Your task to perform on an android device: check android version Image 0: 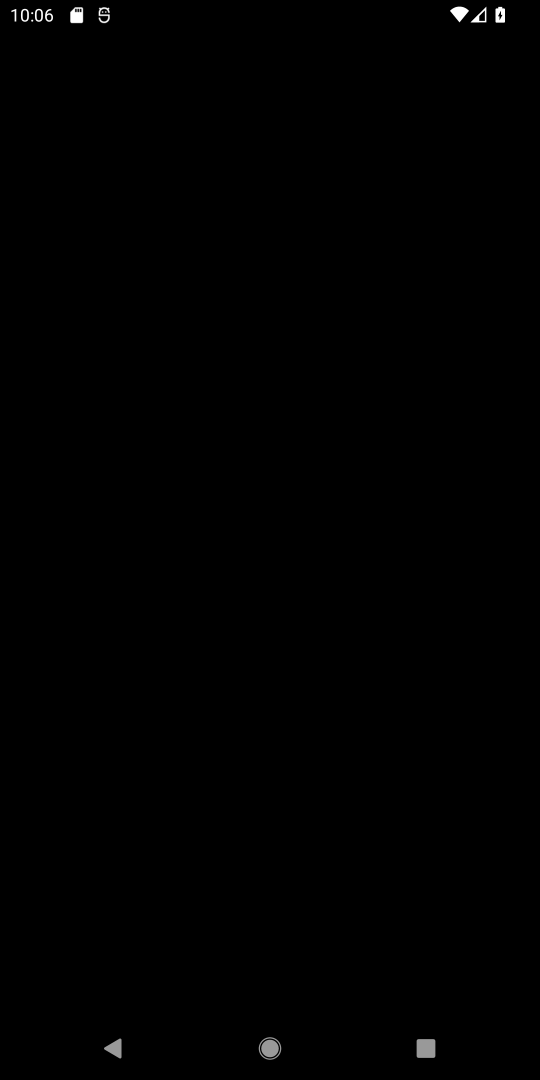
Step 0: press home button
Your task to perform on an android device: check android version Image 1: 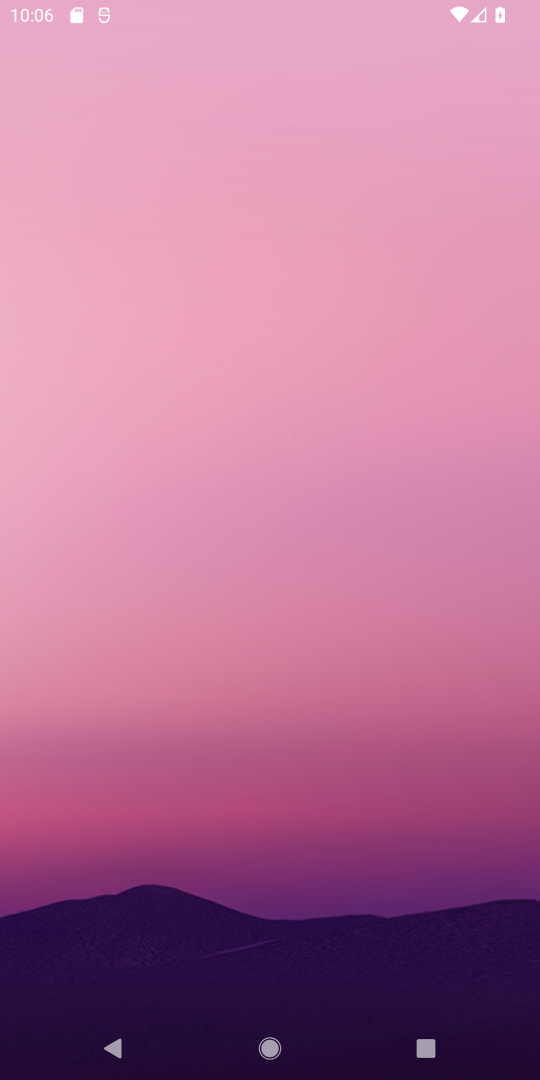
Step 1: press home button
Your task to perform on an android device: check android version Image 2: 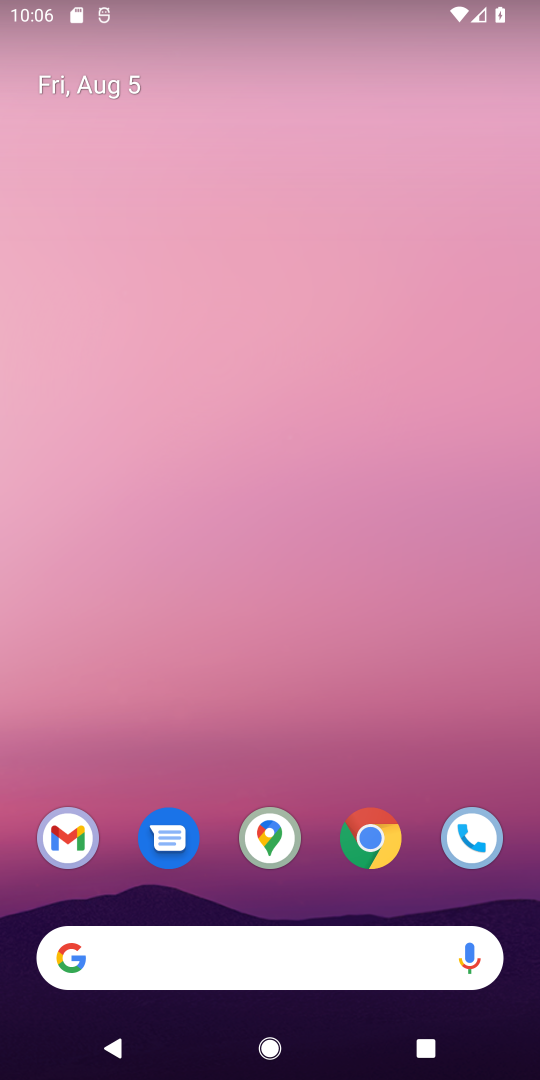
Step 2: press home button
Your task to perform on an android device: check android version Image 3: 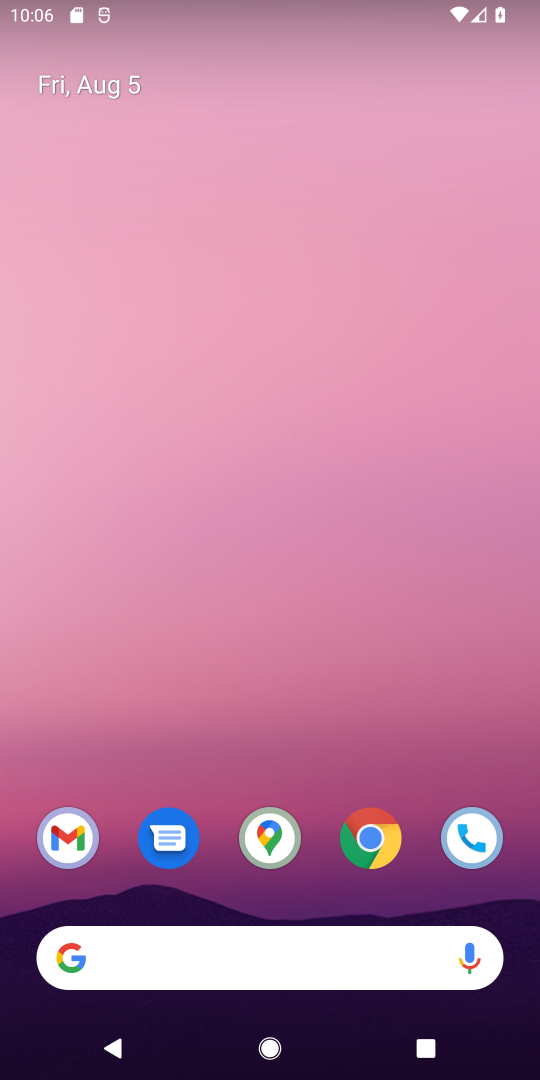
Step 3: drag from (97, 753) to (110, 232)
Your task to perform on an android device: check android version Image 4: 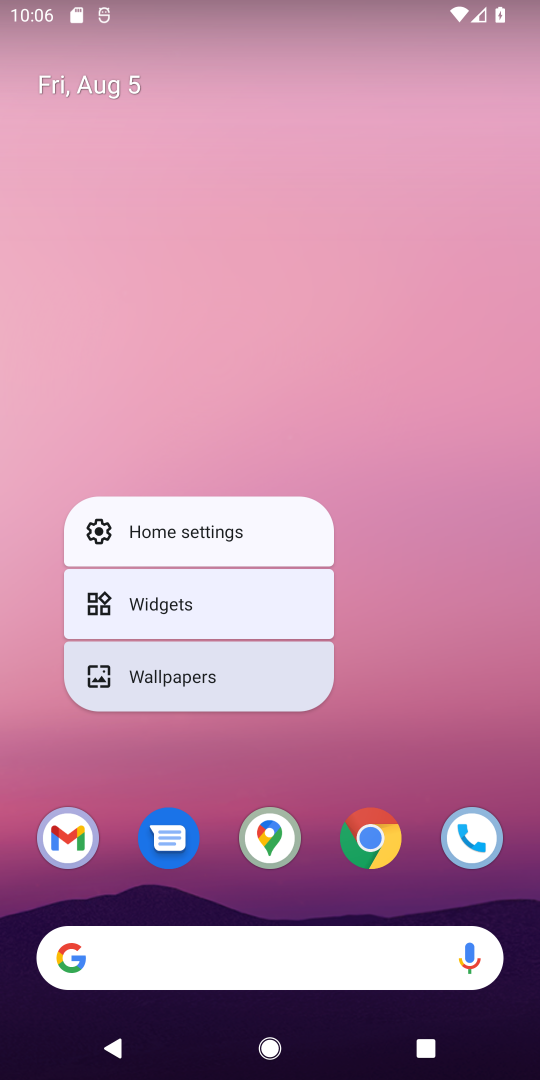
Step 4: click (462, 693)
Your task to perform on an android device: check android version Image 5: 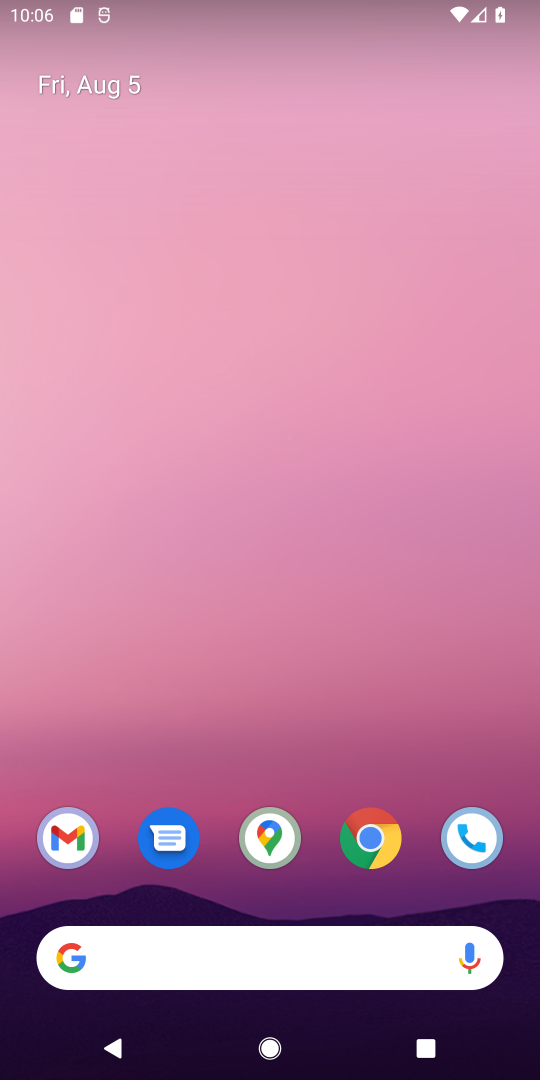
Step 5: drag from (462, 693) to (377, 78)
Your task to perform on an android device: check android version Image 6: 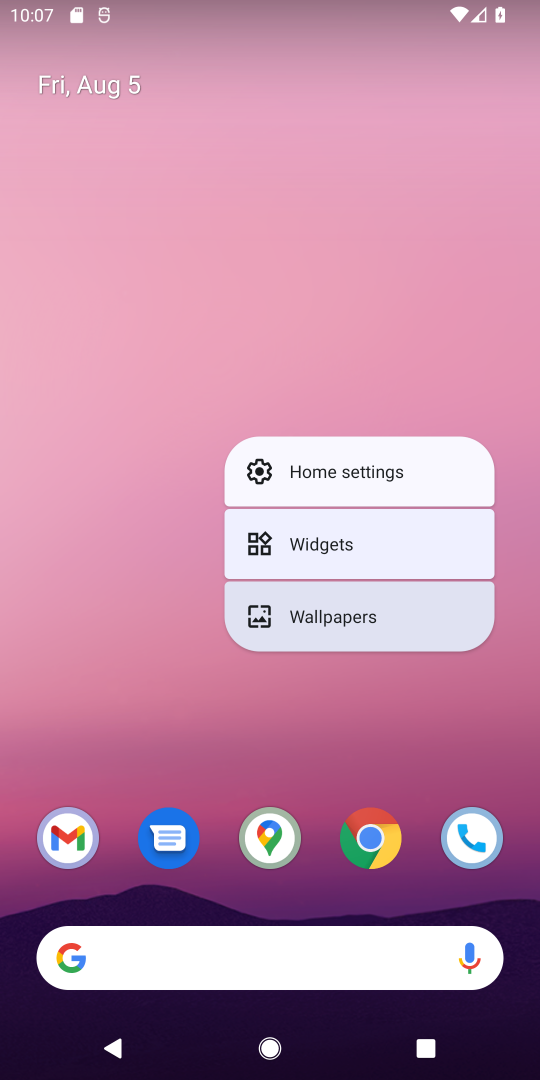
Step 6: click (70, 704)
Your task to perform on an android device: check android version Image 7: 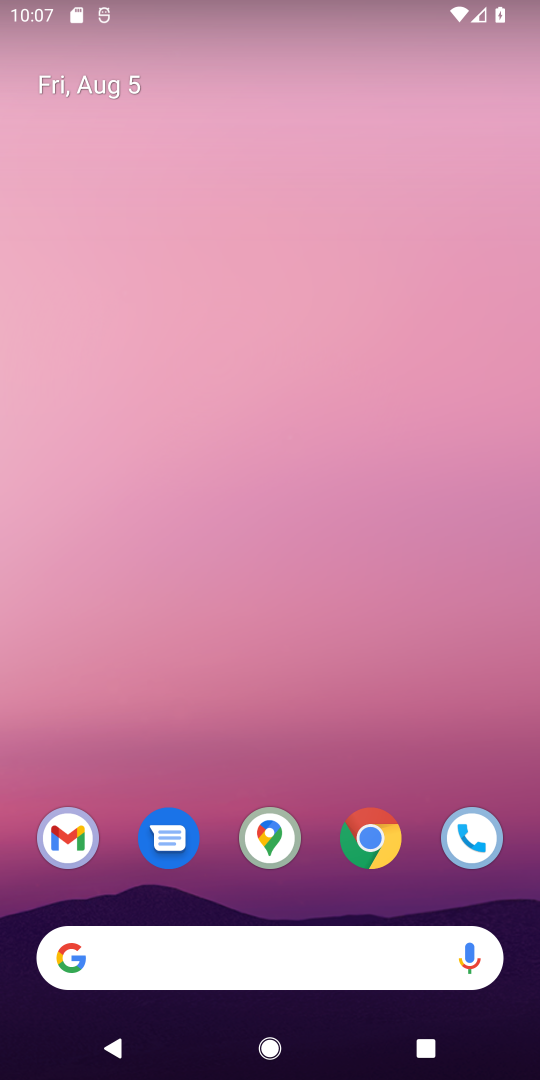
Step 7: drag from (274, 8) to (233, 722)
Your task to perform on an android device: check android version Image 8: 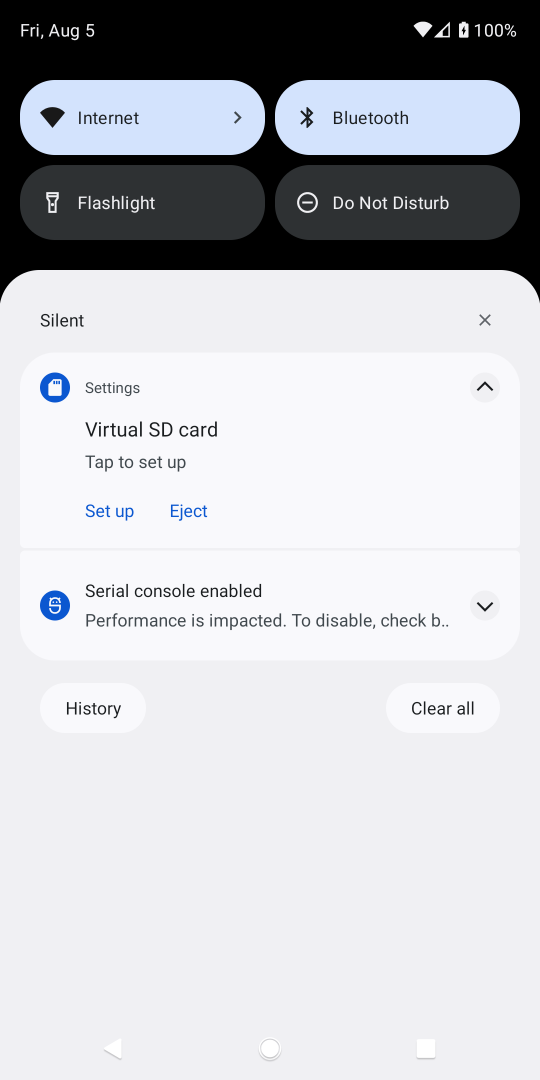
Step 8: drag from (279, 270) to (229, 919)
Your task to perform on an android device: check android version Image 9: 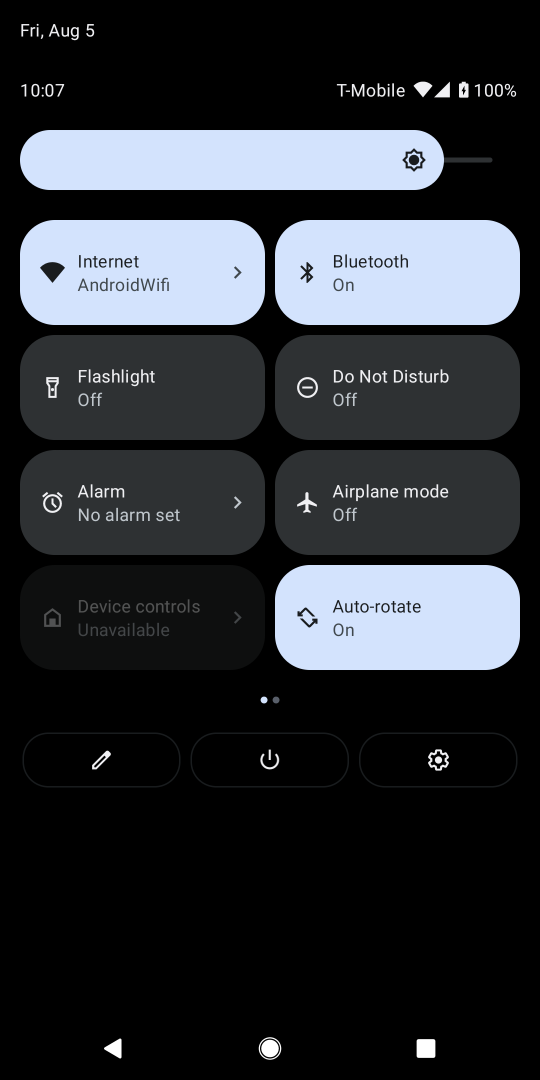
Step 9: click (439, 761)
Your task to perform on an android device: check android version Image 10: 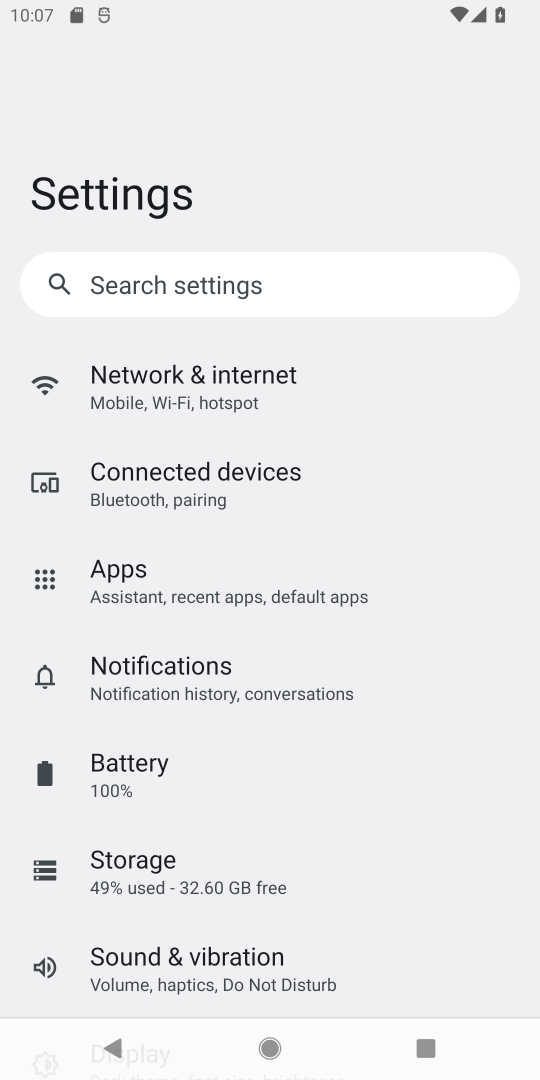
Step 10: drag from (416, 782) to (260, 58)
Your task to perform on an android device: check android version Image 11: 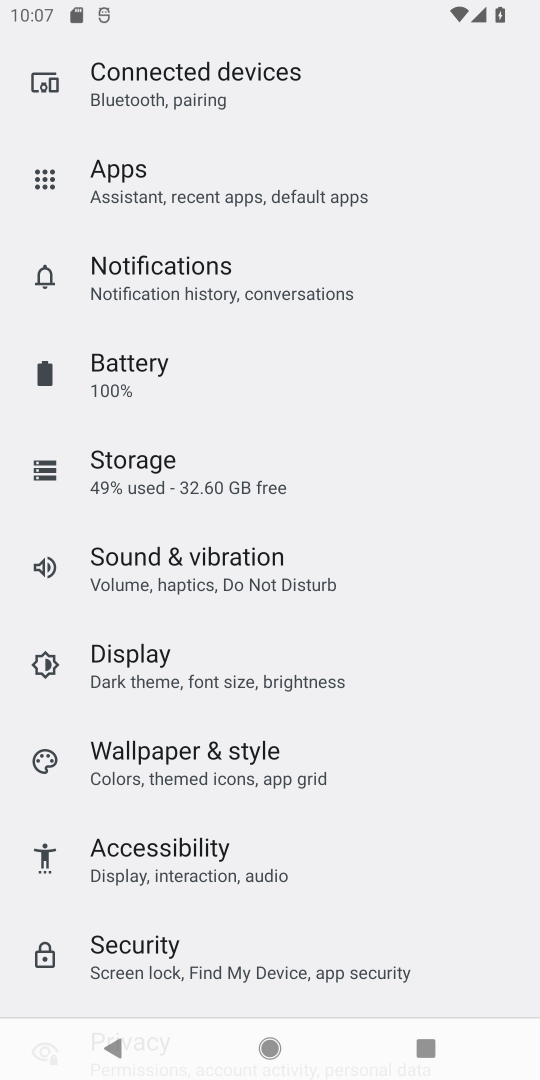
Step 11: drag from (425, 773) to (394, 17)
Your task to perform on an android device: check android version Image 12: 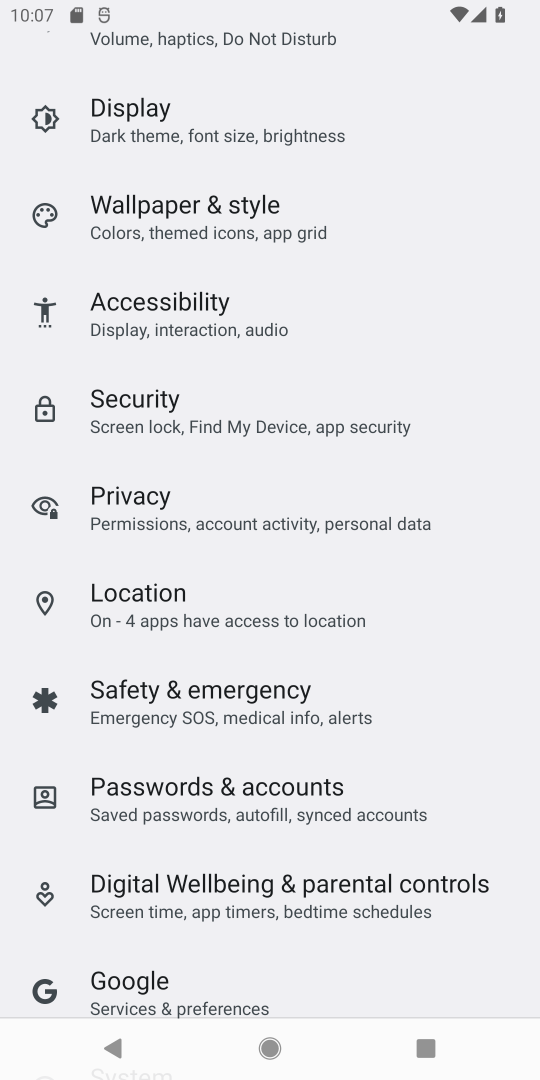
Step 12: drag from (392, 773) to (394, 161)
Your task to perform on an android device: check android version Image 13: 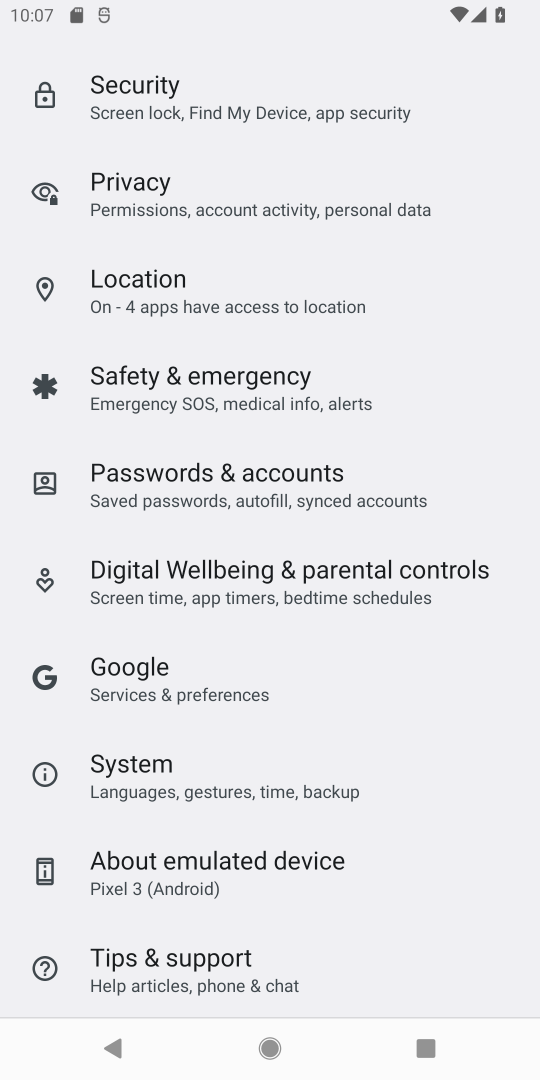
Step 13: drag from (426, 962) to (404, 757)
Your task to perform on an android device: check android version Image 14: 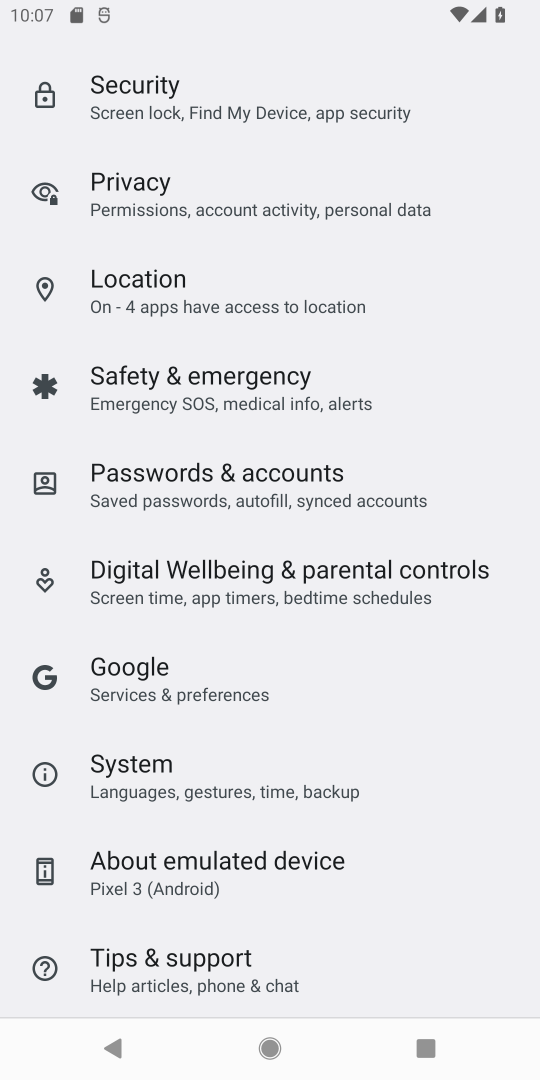
Step 14: click (155, 862)
Your task to perform on an android device: check android version Image 15: 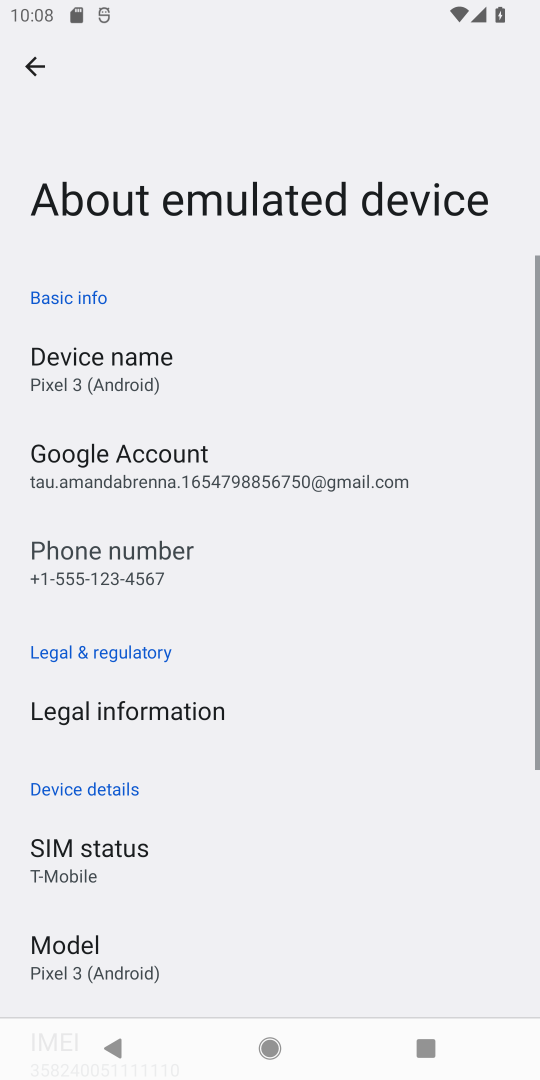
Step 15: drag from (223, 854) to (203, 473)
Your task to perform on an android device: check android version Image 16: 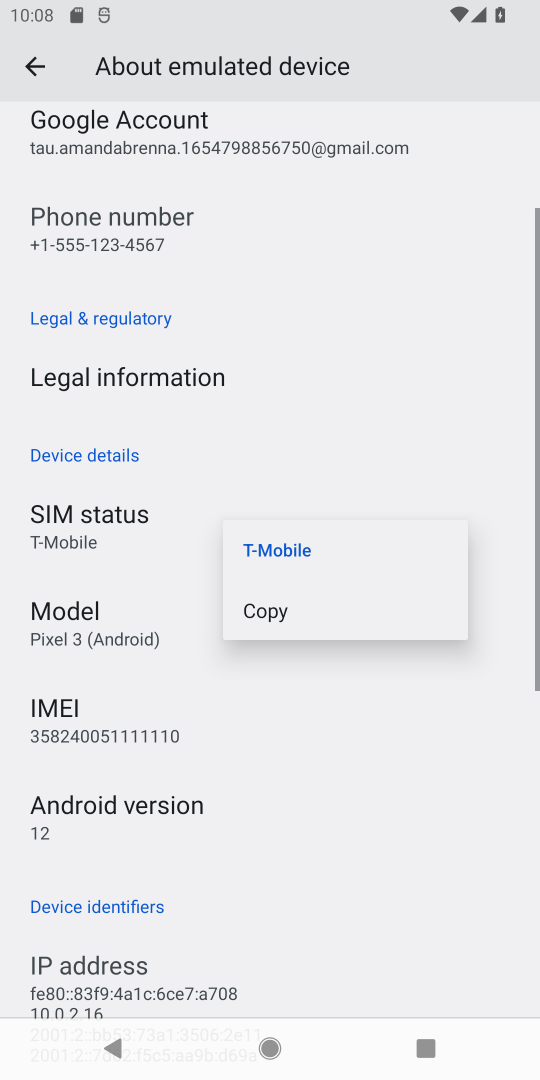
Step 16: click (99, 809)
Your task to perform on an android device: check android version Image 17: 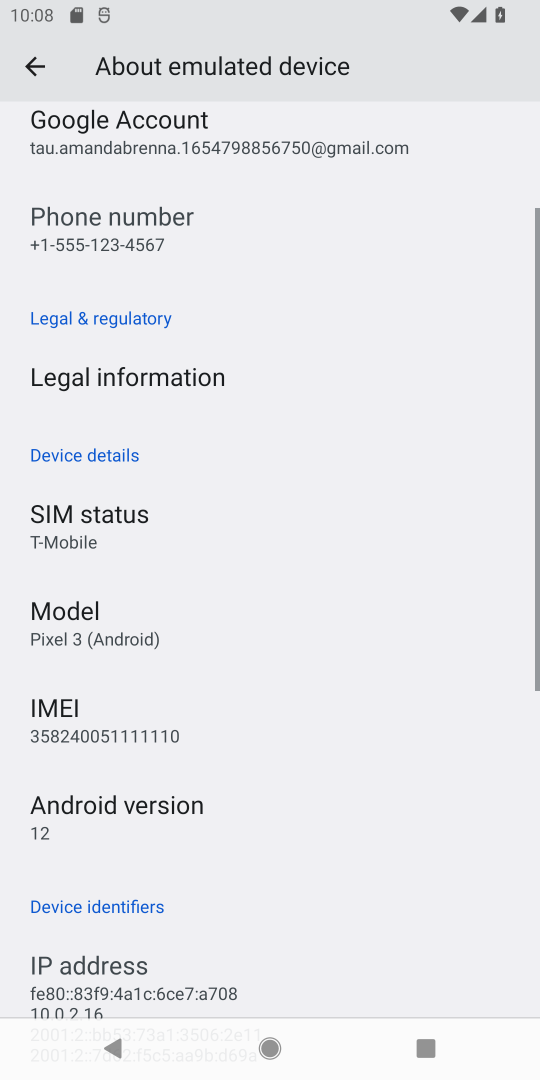
Step 17: click (99, 809)
Your task to perform on an android device: check android version Image 18: 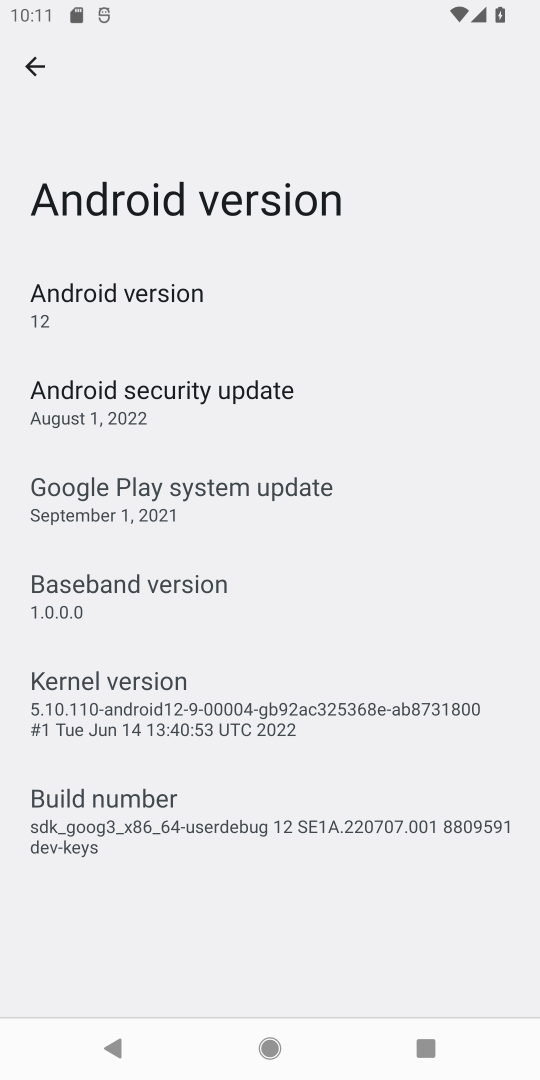
Step 18: task complete